Your task to perform on an android device: all mails in gmail Image 0: 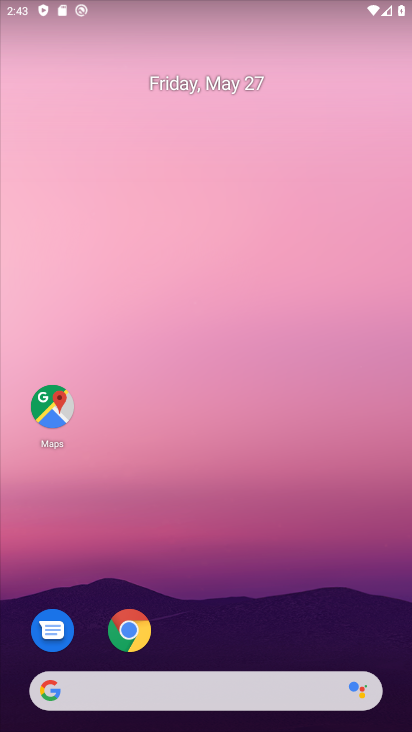
Step 0: drag from (196, 641) to (194, 59)
Your task to perform on an android device: all mails in gmail Image 1: 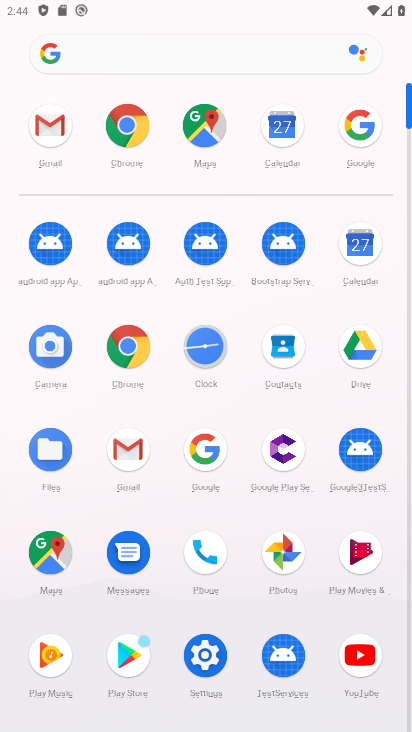
Step 1: click (131, 459)
Your task to perform on an android device: all mails in gmail Image 2: 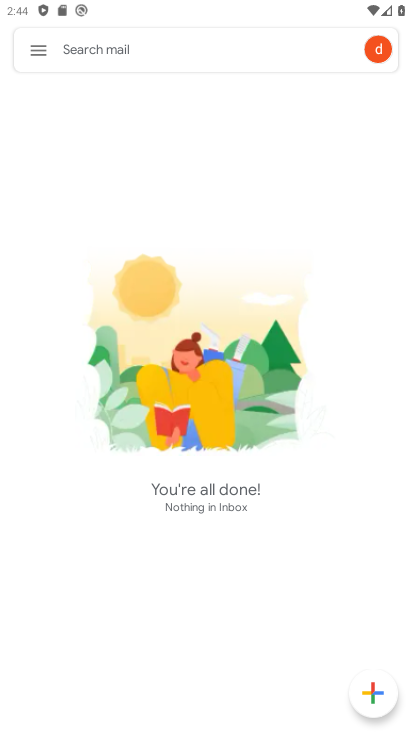
Step 2: task complete